Your task to perform on an android device: Open Amazon Image 0: 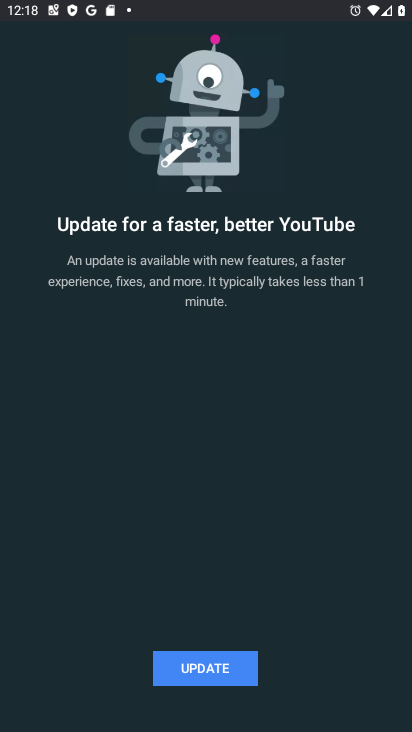
Step 0: press home button
Your task to perform on an android device: Open Amazon Image 1: 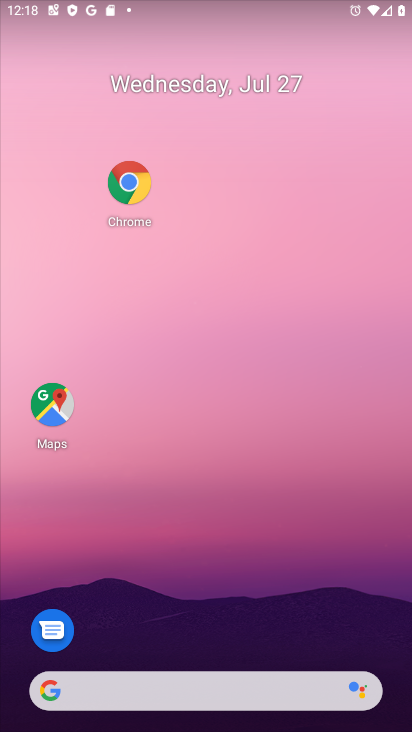
Step 1: click (131, 180)
Your task to perform on an android device: Open Amazon Image 2: 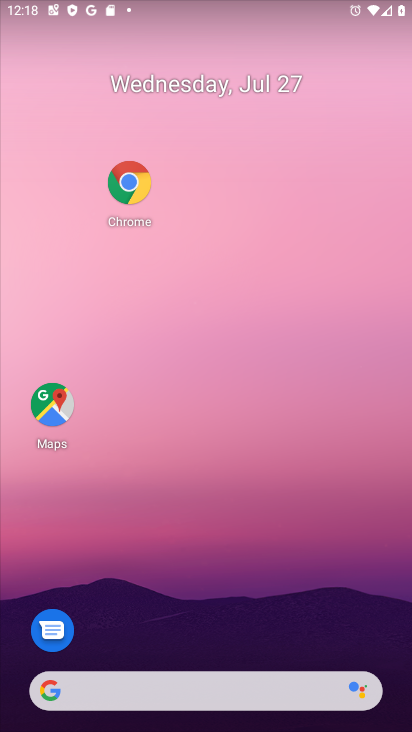
Step 2: click (131, 180)
Your task to perform on an android device: Open Amazon Image 3: 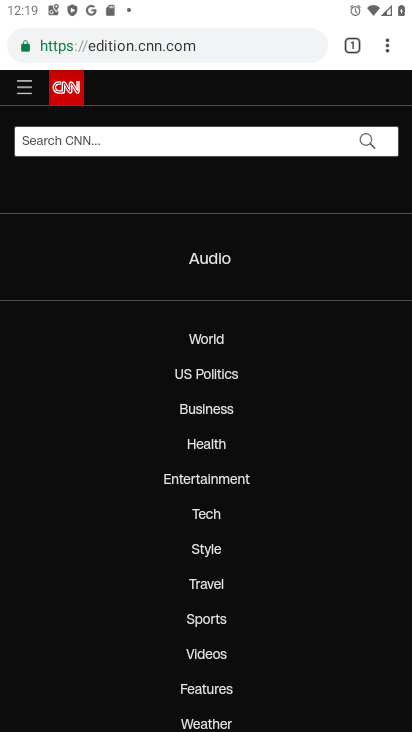
Step 3: press home button
Your task to perform on an android device: Open Amazon Image 4: 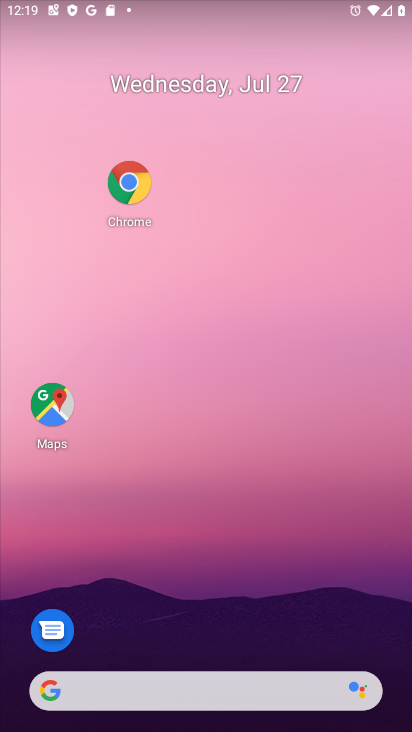
Step 4: click (135, 184)
Your task to perform on an android device: Open Amazon Image 5: 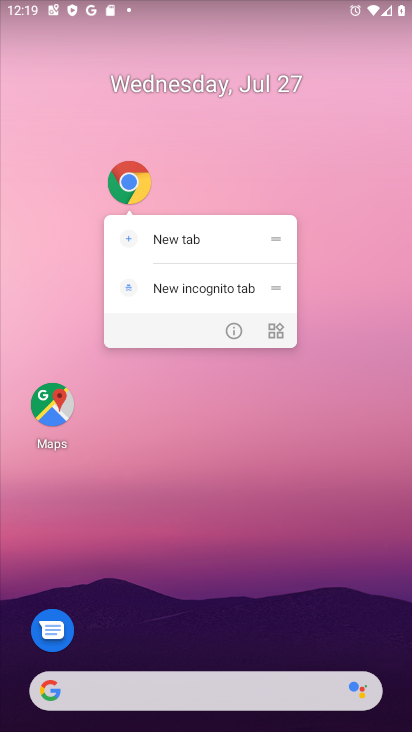
Step 5: click (135, 184)
Your task to perform on an android device: Open Amazon Image 6: 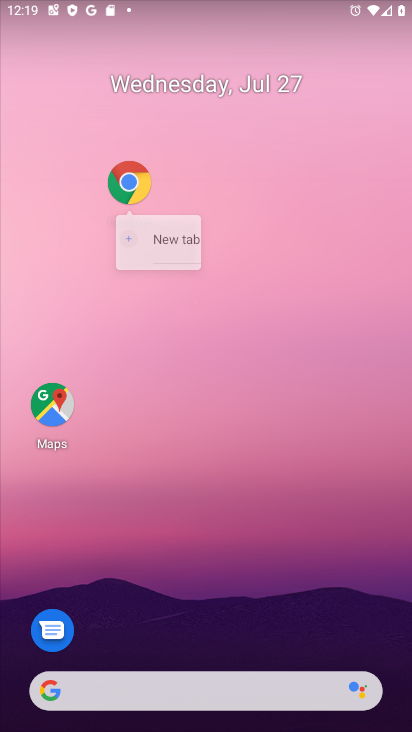
Step 6: click (135, 184)
Your task to perform on an android device: Open Amazon Image 7: 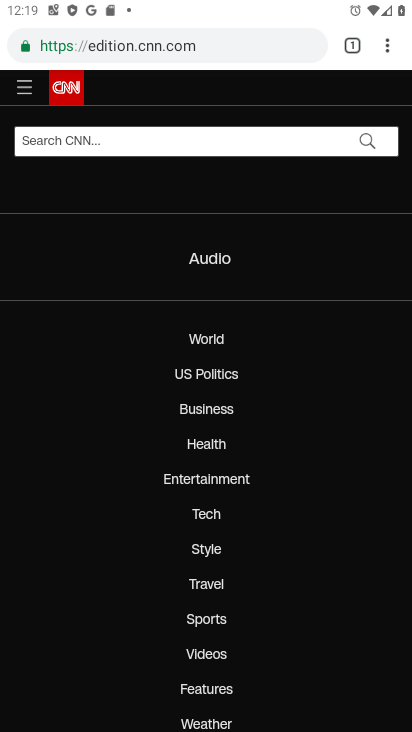
Step 7: click (389, 45)
Your task to perform on an android device: Open Amazon Image 8: 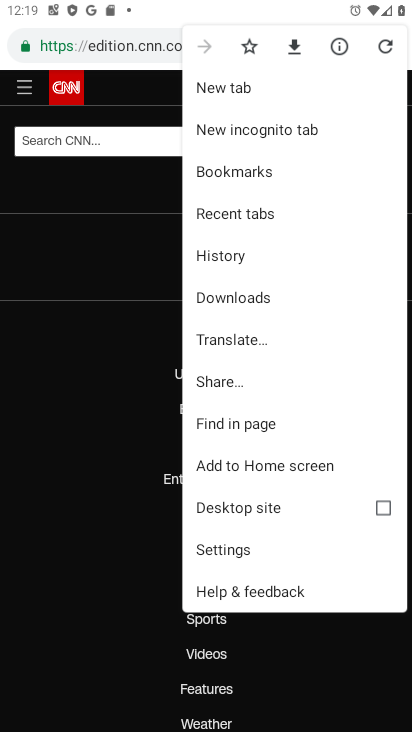
Step 8: click (313, 99)
Your task to perform on an android device: Open Amazon Image 9: 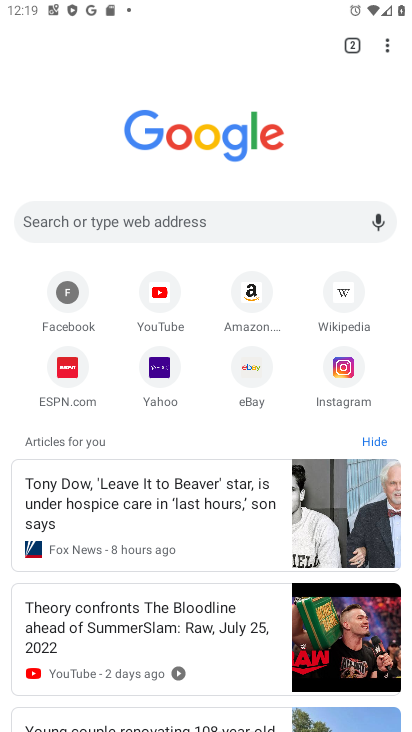
Step 9: click (255, 300)
Your task to perform on an android device: Open Amazon Image 10: 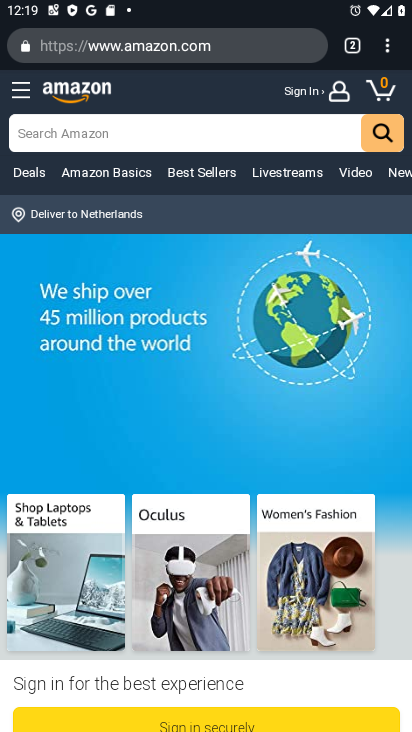
Step 10: task complete